Your task to perform on an android device: see sites visited before in the chrome app Image 0: 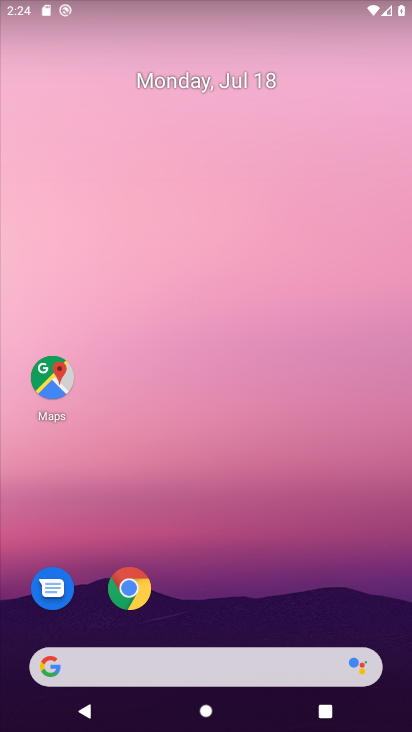
Step 0: click (142, 587)
Your task to perform on an android device: see sites visited before in the chrome app Image 1: 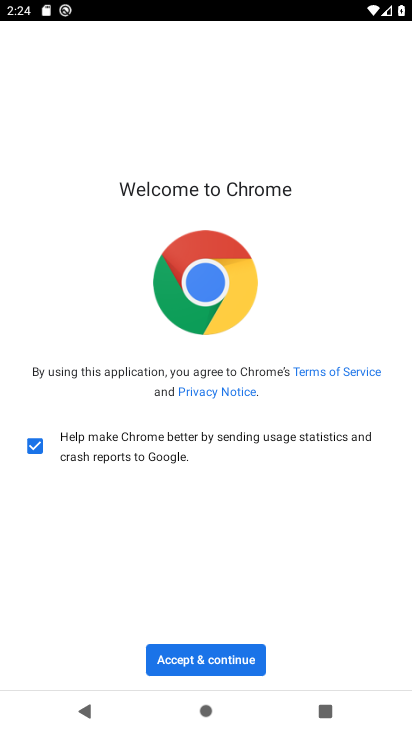
Step 1: click (225, 658)
Your task to perform on an android device: see sites visited before in the chrome app Image 2: 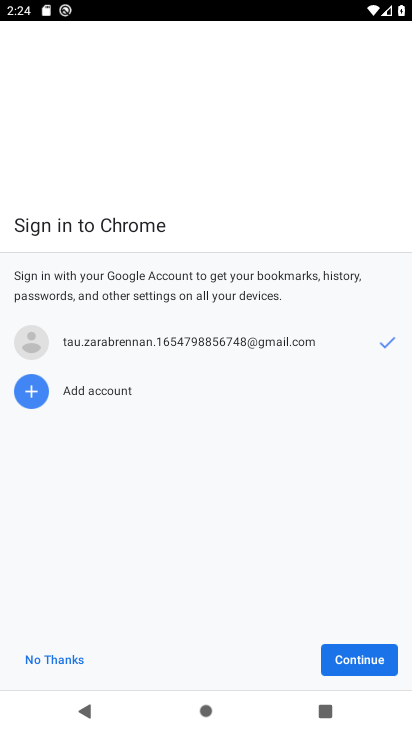
Step 2: click (371, 660)
Your task to perform on an android device: see sites visited before in the chrome app Image 3: 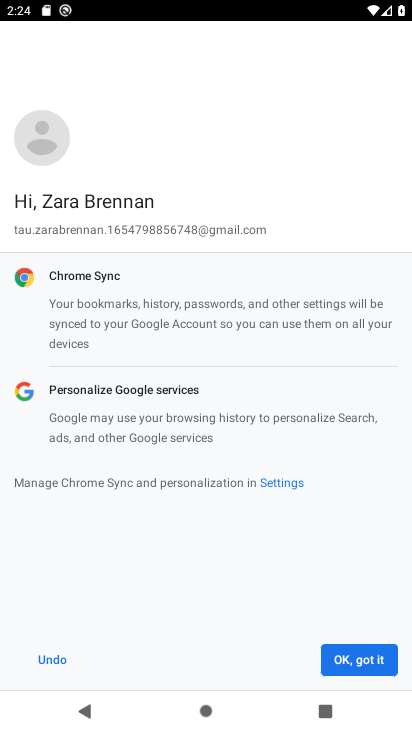
Step 3: click (371, 660)
Your task to perform on an android device: see sites visited before in the chrome app Image 4: 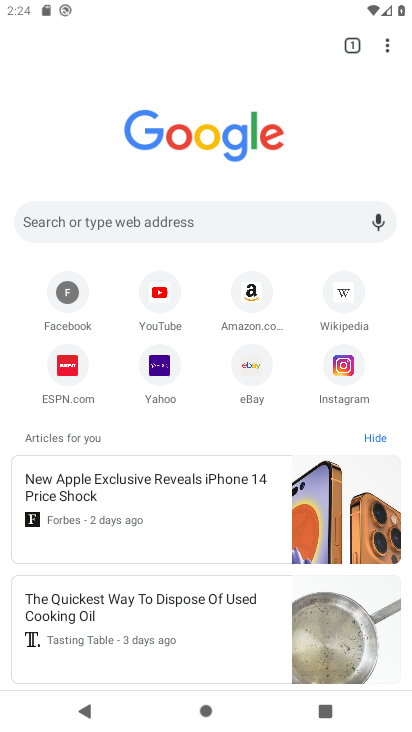
Step 4: click (376, 52)
Your task to perform on an android device: see sites visited before in the chrome app Image 5: 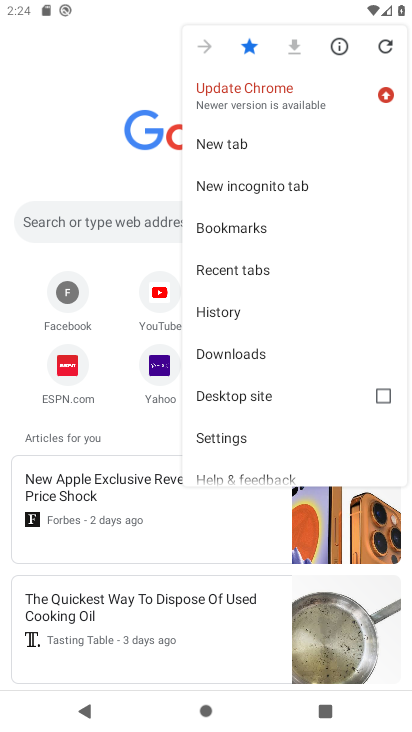
Step 5: click (213, 266)
Your task to perform on an android device: see sites visited before in the chrome app Image 6: 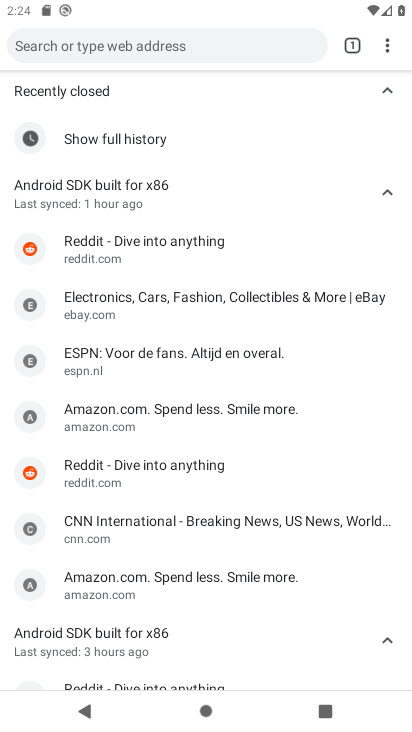
Step 6: task complete